Your task to perform on an android device: What is the news today? Image 0: 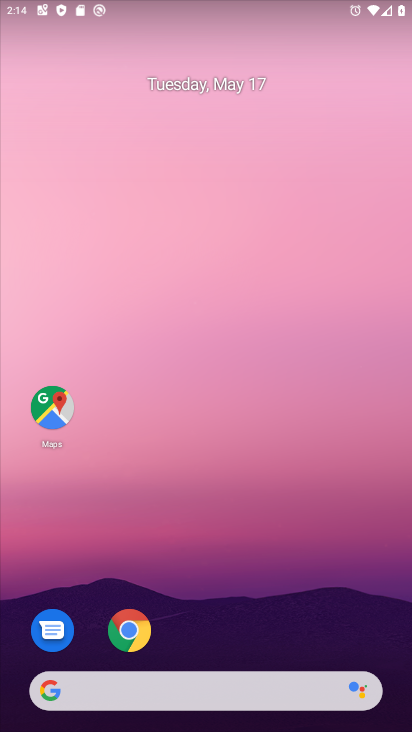
Step 0: drag from (258, 591) to (278, 178)
Your task to perform on an android device: What is the news today? Image 1: 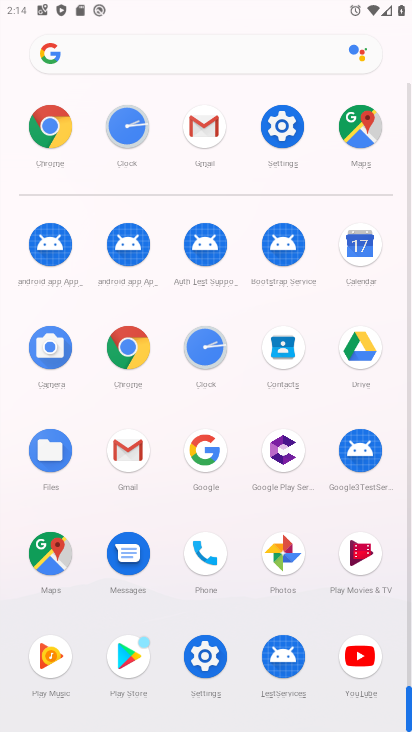
Step 1: click (40, 133)
Your task to perform on an android device: What is the news today? Image 2: 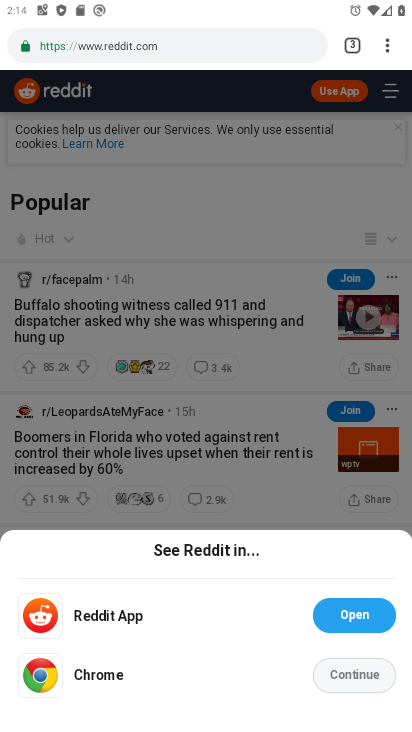
Step 2: click (153, 44)
Your task to perform on an android device: What is the news today? Image 3: 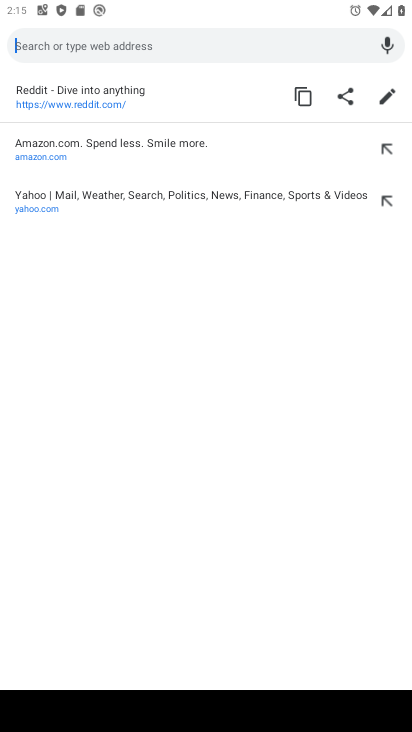
Step 3: type "what is the news today"
Your task to perform on an android device: What is the news today? Image 4: 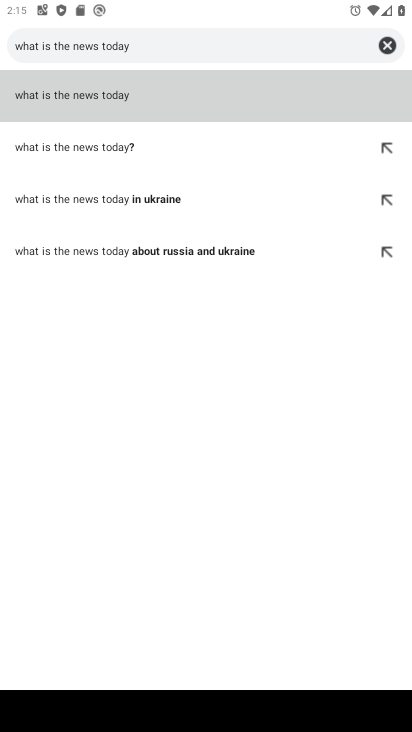
Step 4: click (104, 106)
Your task to perform on an android device: What is the news today? Image 5: 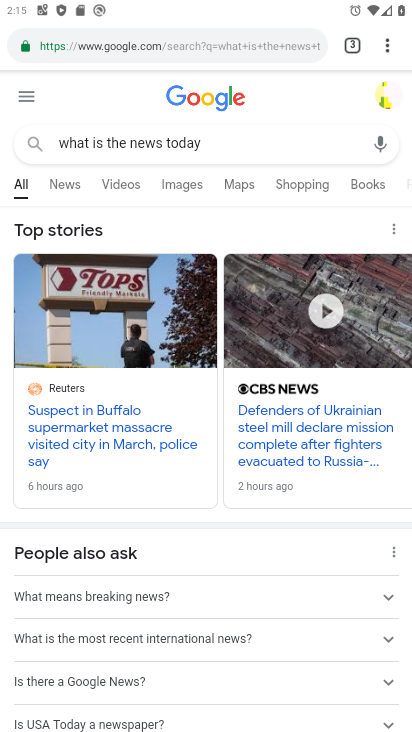
Step 5: task complete